Your task to perform on an android device: Go to location settings Image 0: 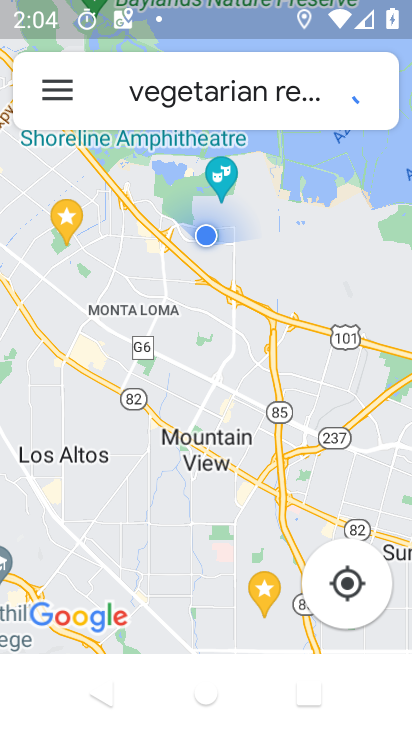
Step 0: press home button
Your task to perform on an android device: Go to location settings Image 1: 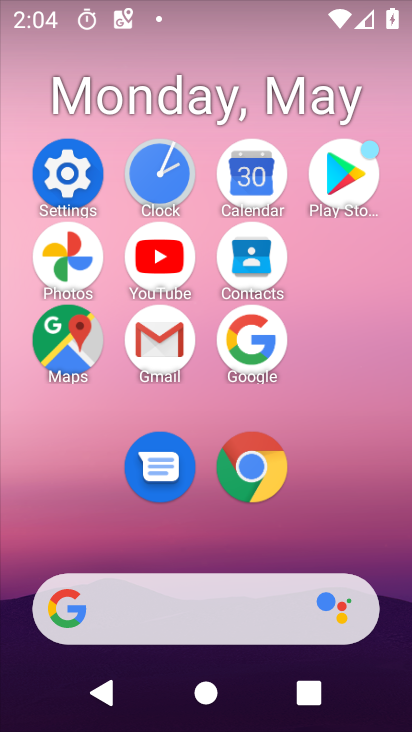
Step 1: click (53, 173)
Your task to perform on an android device: Go to location settings Image 2: 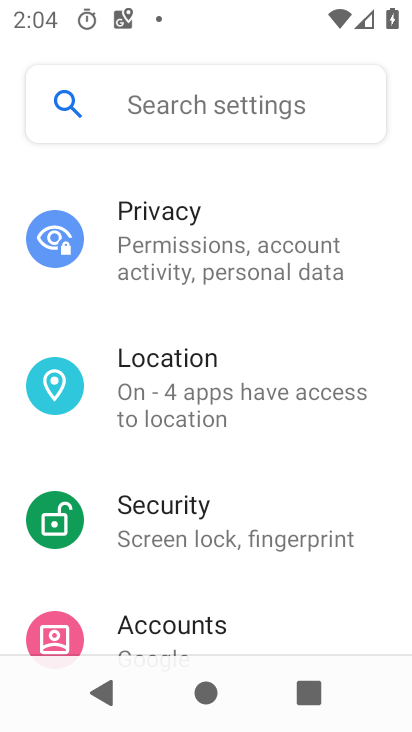
Step 2: click (231, 410)
Your task to perform on an android device: Go to location settings Image 3: 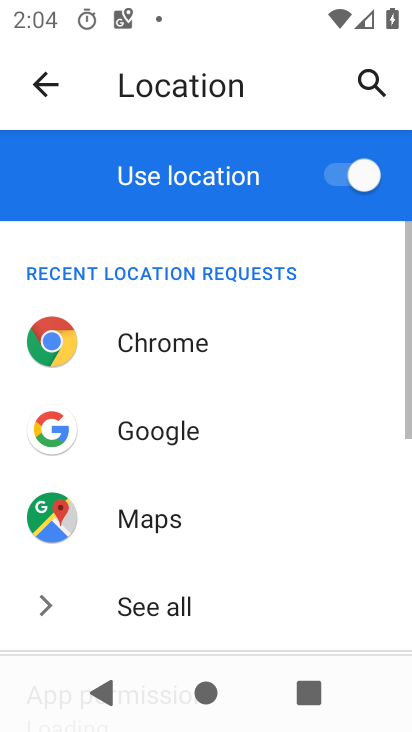
Step 3: task complete